Your task to perform on an android device: Search for sushi restaurants on Maps Image 0: 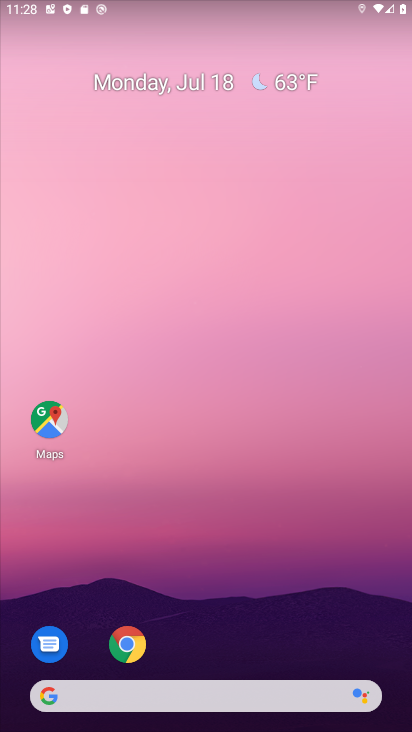
Step 0: drag from (211, 724) to (207, 151)
Your task to perform on an android device: Search for sushi restaurants on Maps Image 1: 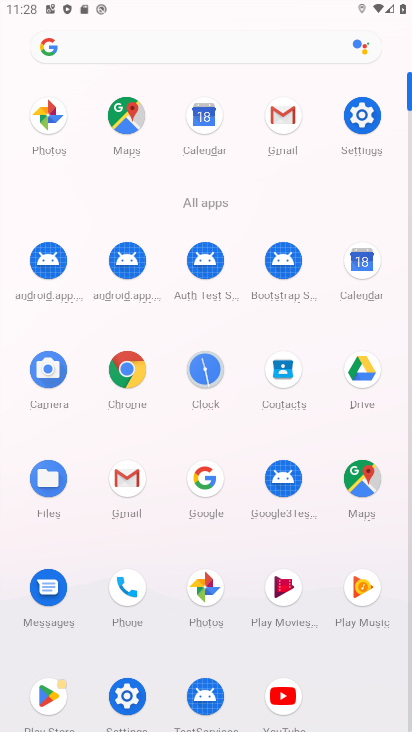
Step 1: click (361, 480)
Your task to perform on an android device: Search for sushi restaurants on Maps Image 2: 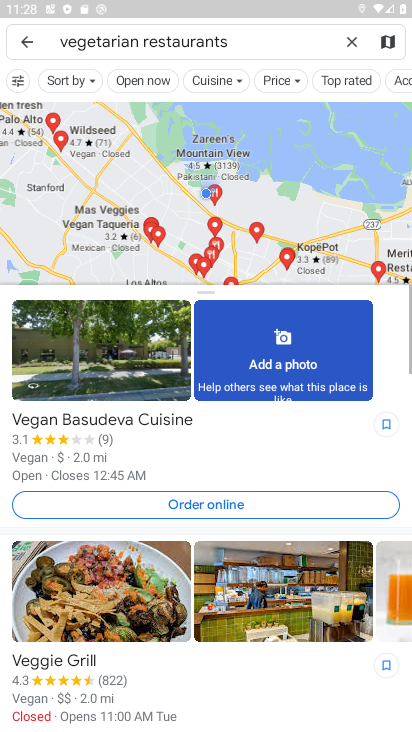
Step 2: click (354, 38)
Your task to perform on an android device: Search for sushi restaurants on Maps Image 3: 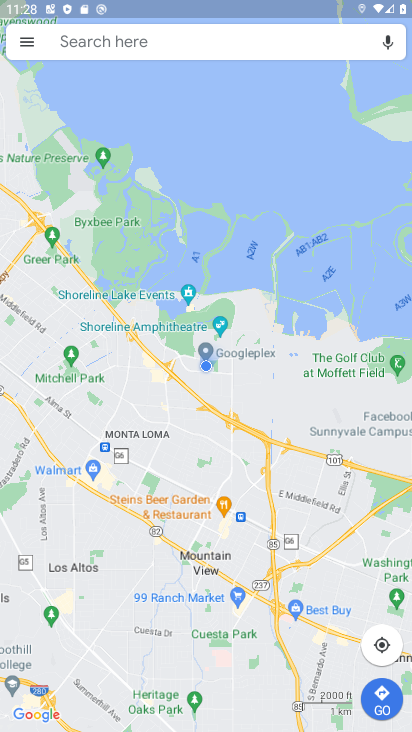
Step 3: click (263, 42)
Your task to perform on an android device: Search for sushi restaurants on Maps Image 4: 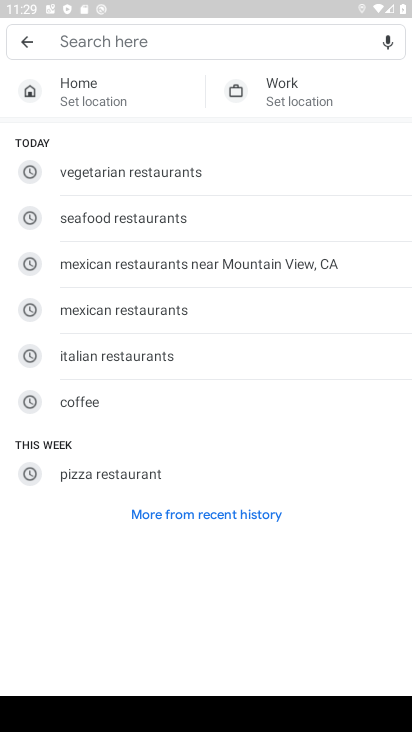
Step 4: type "shushi restaurants"
Your task to perform on an android device: Search for sushi restaurants on Maps Image 5: 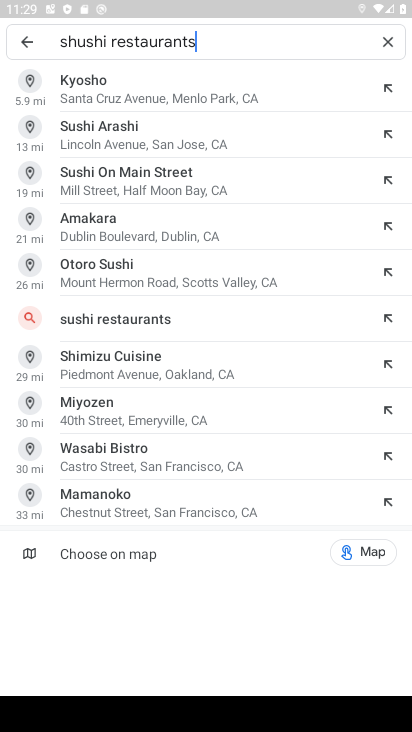
Step 5: click (139, 318)
Your task to perform on an android device: Search for sushi restaurants on Maps Image 6: 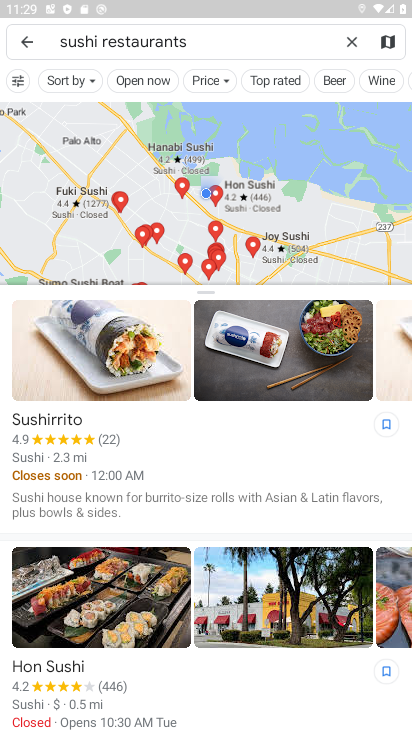
Step 6: task complete